Your task to perform on an android device: read, delete, or share a saved page in the chrome app Image 0: 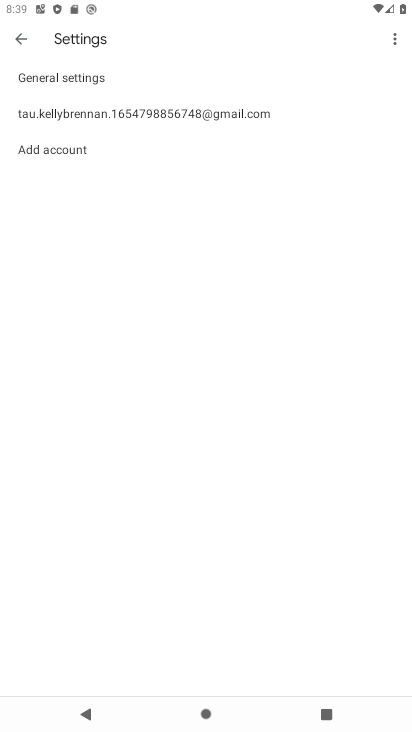
Step 0: click (112, 683)
Your task to perform on an android device: read, delete, or share a saved page in the chrome app Image 1: 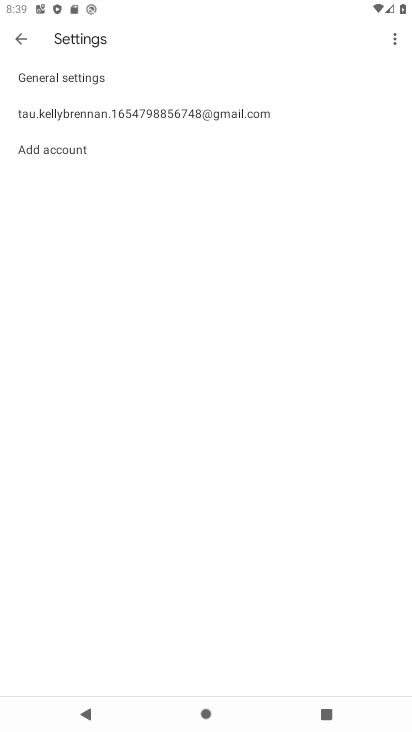
Step 1: press home button
Your task to perform on an android device: read, delete, or share a saved page in the chrome app Image 2: 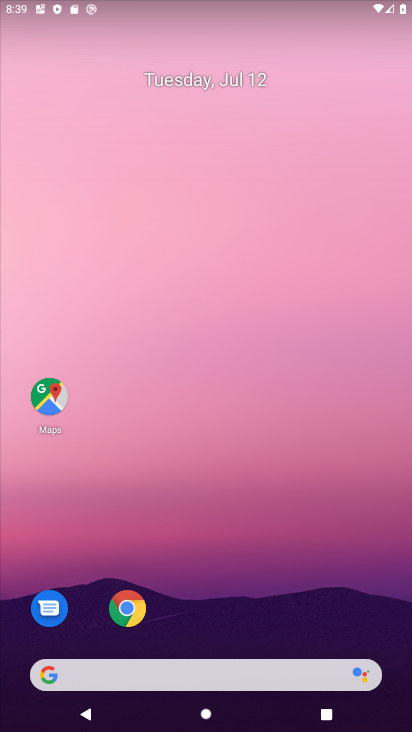
Step 2: click (123, 618)
Your task to perform on an android device: read, delete, or share a saved page in the chrome app Image 3: 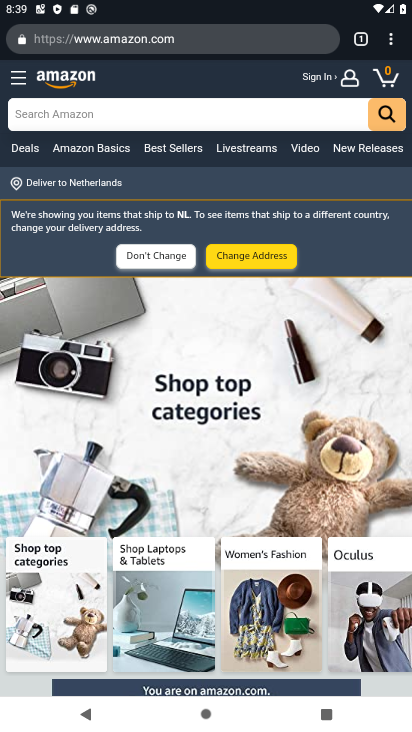
Step 3: click (394, 48)
Your task to perform on an android device: read, delete, or share a saved page in the chrome app Image 4: 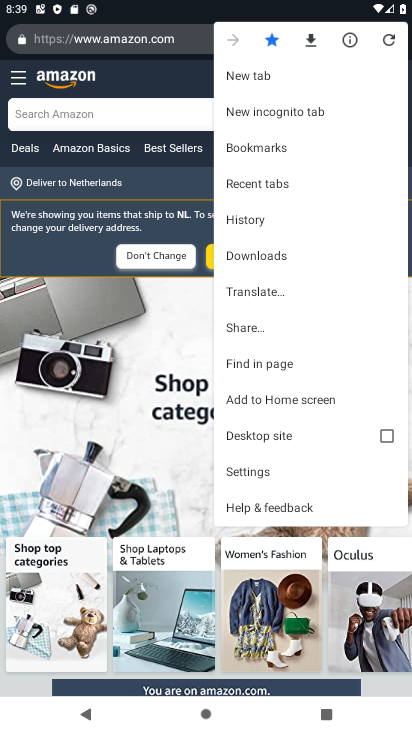
Step 4: click (280, 469)
Your task to perform on an android device: read, delete, or share a saved page in the chrome app Image 5: 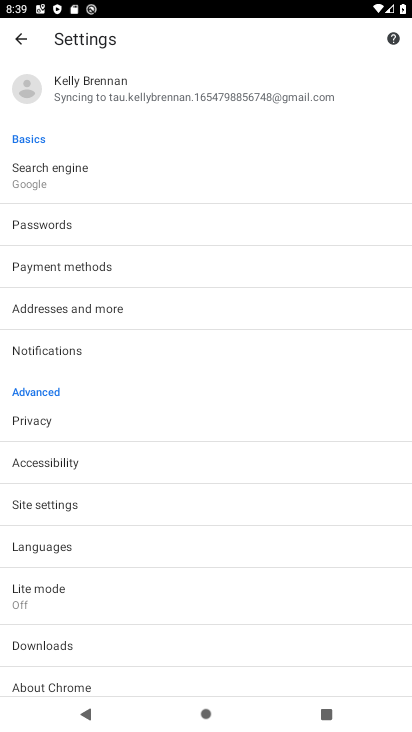
Step 5: click (141, 71)
Your task to perform on an android device: read, delete, or share a saved page in the chrome app Image 6: 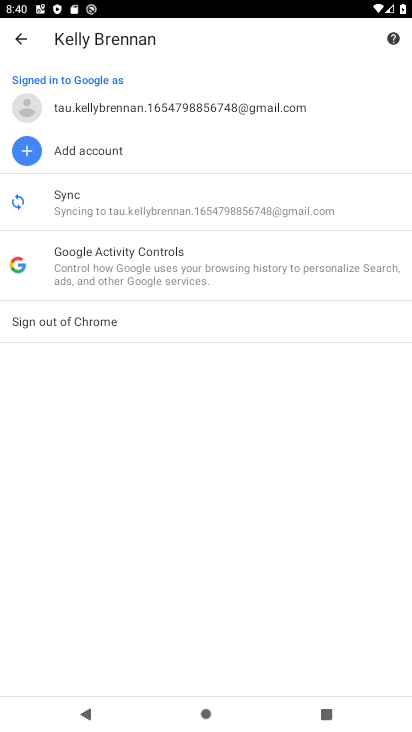
Step 6: click (19, 38)
Your task to perform on an android device: read, delete, or share a saved page in the chrome app Image 7: 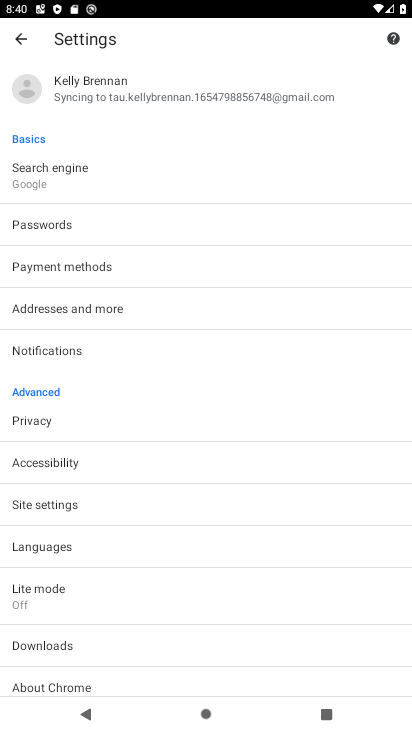
Step 7: task complete